Your task to perform on an android device: set default search engine in the chrome app Image 0: 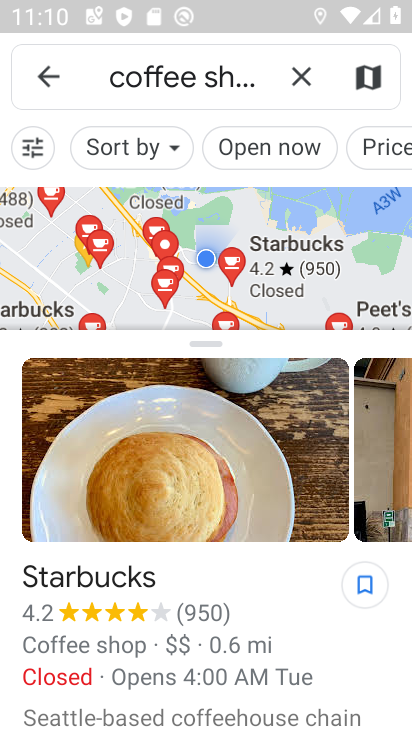
Step 0: press home button
Your task to perform on an android device: set default search engine in the chrome app Image 1: 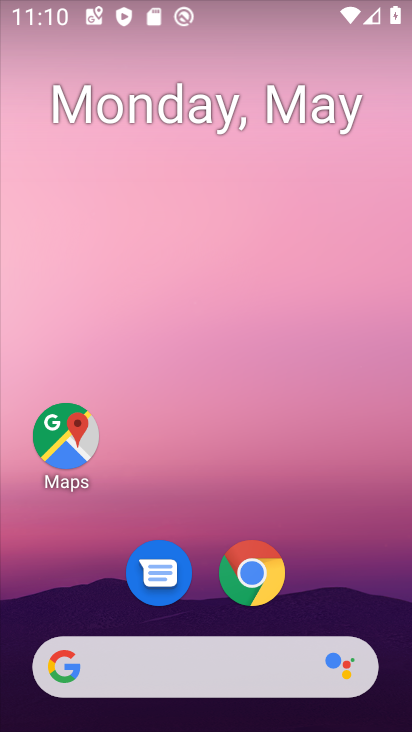
Step 1: click (250, 566)
Your task to perform on an android device: set default search engine in the chrome app Image 2: 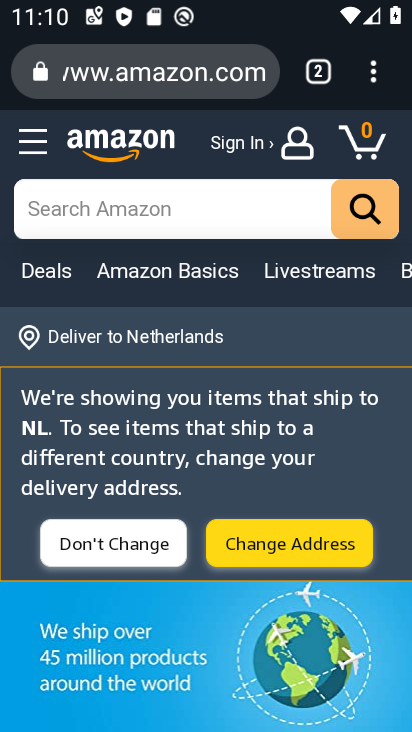
Step 2: click (381, 61)
Your task to perform on an android device: set default search engine in the chrome app Image 3: 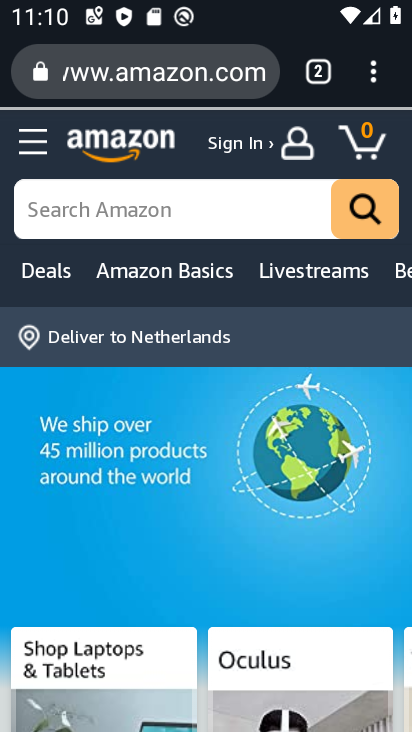
Step 3: click (376, 76)
Your task to perform on an android device: set default search engine in the chrome app Image 4: 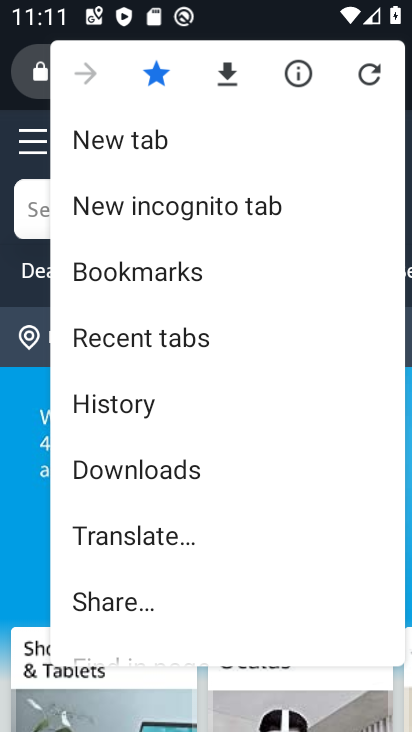
Step 4: drag from (237, 534) to (224, 131)
Your task to perform on an android device: set default search engine in the chrome app Image 5: 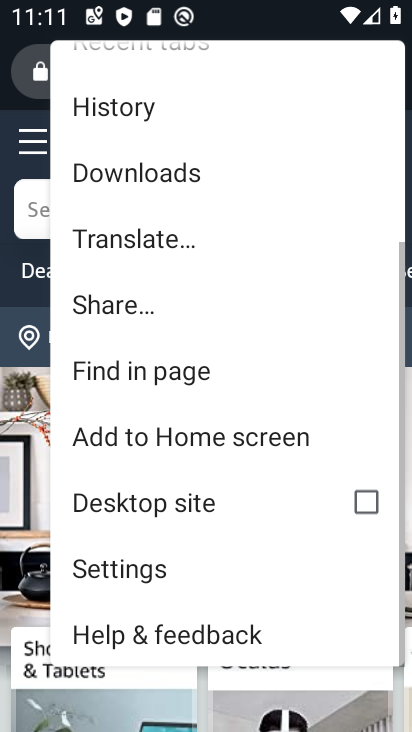
Step 5: click (192, 568)
Your task to perform on an android device: set default search engine in the chrome app Image 6: 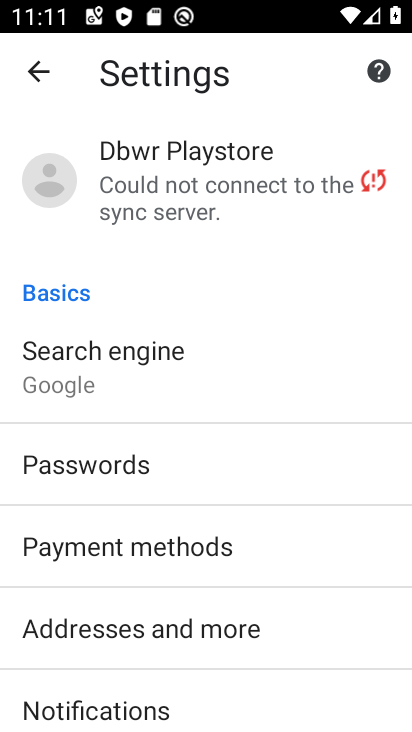
Step 6: click (194, 345)
Your task to perform on an android device: set default search engine in the chrome app Image 7: 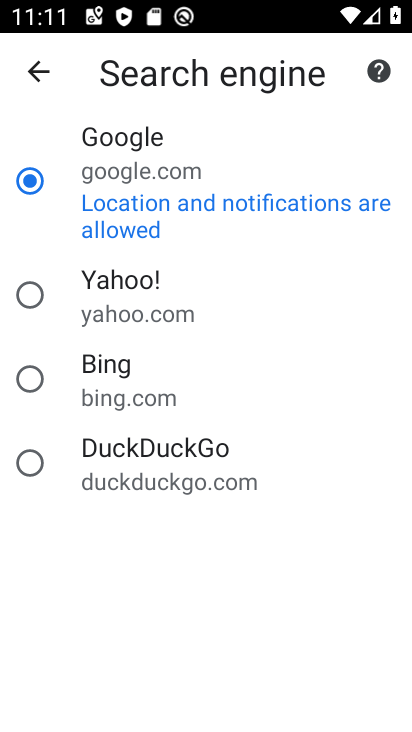
Step 7: click (227, 138)
Your task to perform on an android device: set default search engine in the chrome app Image 8: 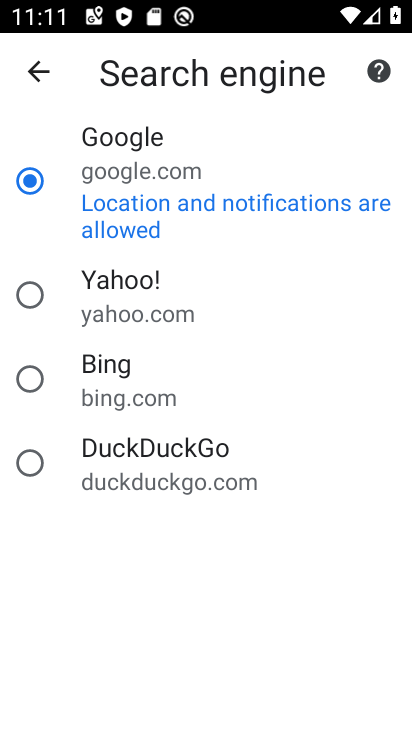
Step 8: task complete